Your task to perform on an android device: toggle wifi Image 0: 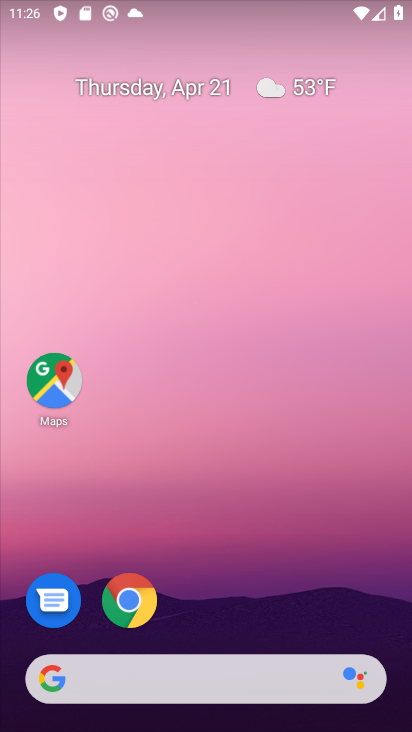
Step 0: drag from (200, 540) to (308, 143)
Your task to perform on an android device: toggle wifi Image 1: 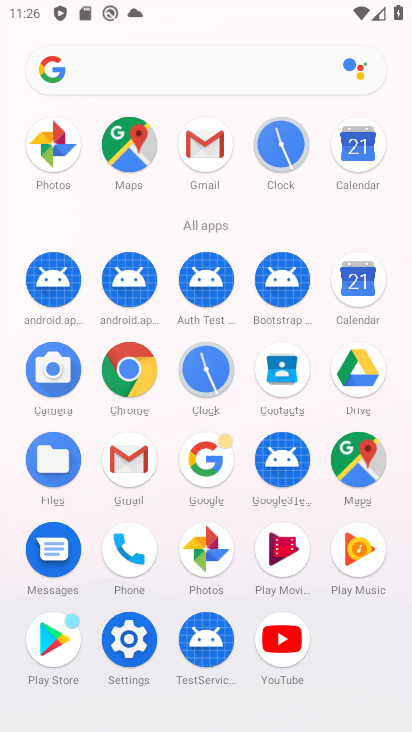
Step 1: click (133, 637)
Your task to perform on an android device: toggle wifi Image 2: 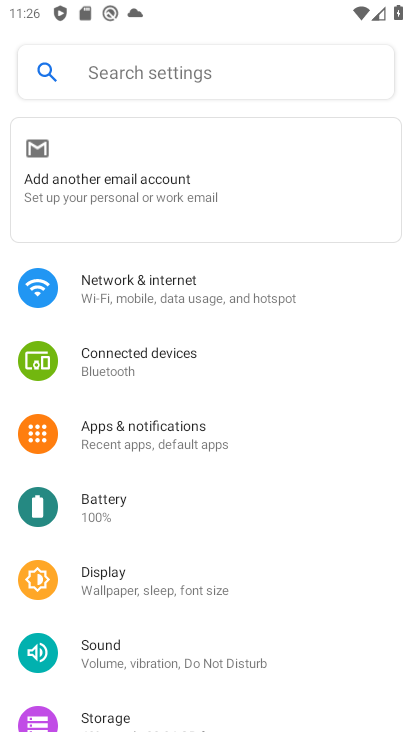
Step 2: click (239, 288)
Your task to perform on an android device: toggle wifi Image 3: 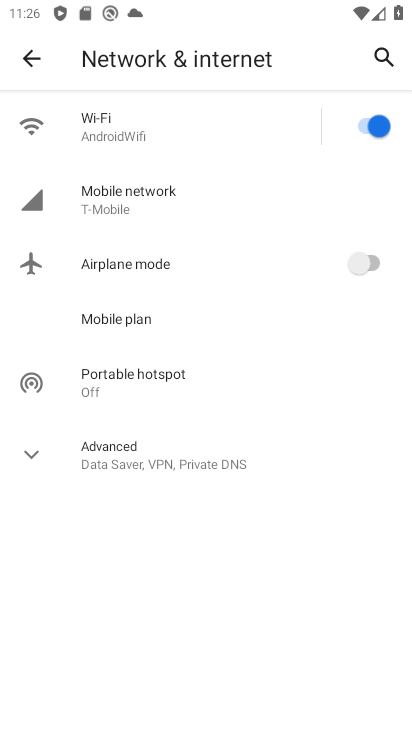
Step 3: click (355, 123)
Your task to perform on an android device: toggle wifi Image 4: 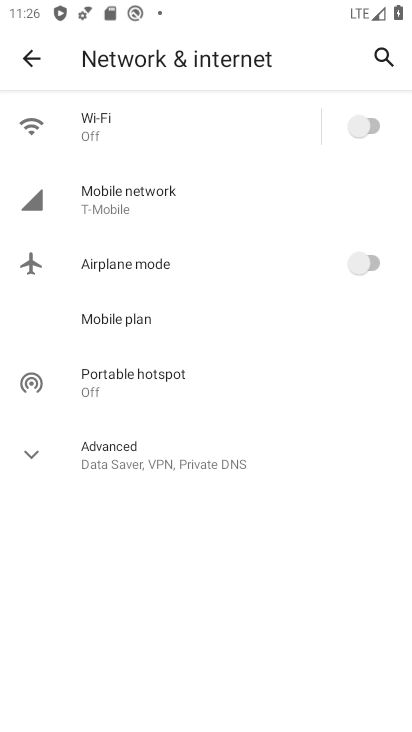
Step 4: task complete